Your task to perform on an android device: toggle wifi Image 0: 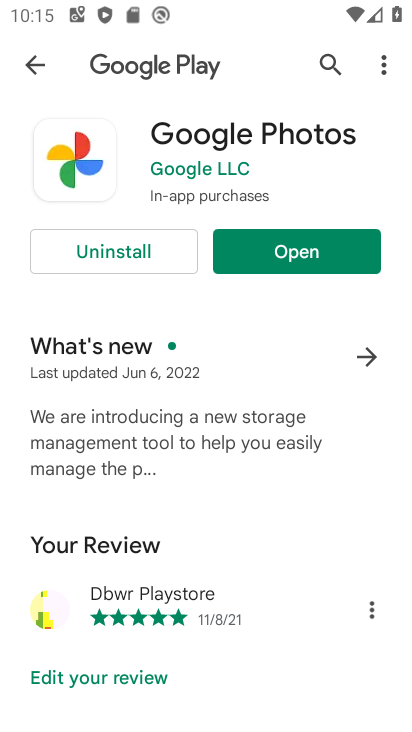
Step 0: press home button
Your task to perform on an android device: toggle wifi Image 1: 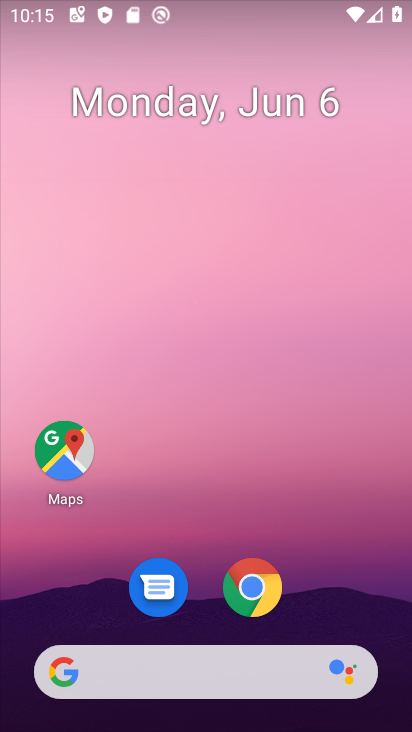
Step 1: drag from (209, 702) to (250, 4)
Your task to perform on an android device: toggle wifi Image 2: 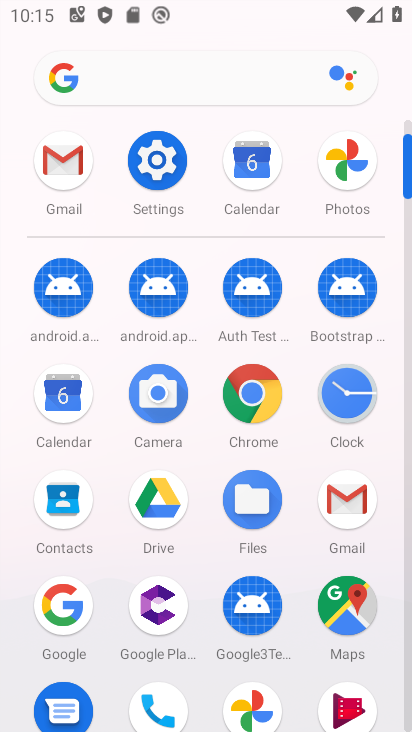
Step 2: click (144, 173)
Your task to perform on an android device: toggle wifi Image 3: 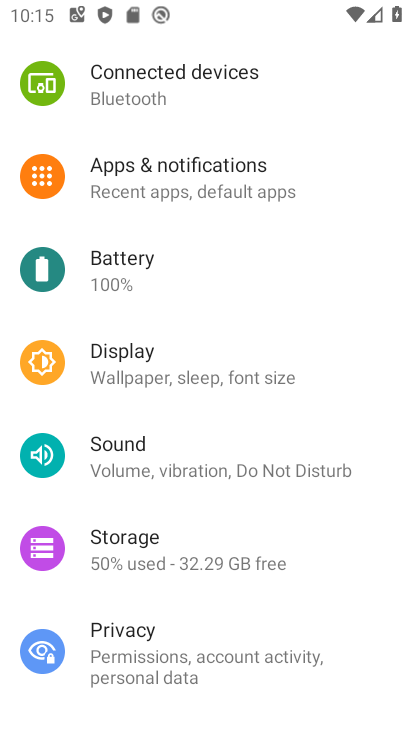
Step 3: drag from (254, 147) to (177, 632)
Your task to perform on an android device: toggle wifi Image 4: 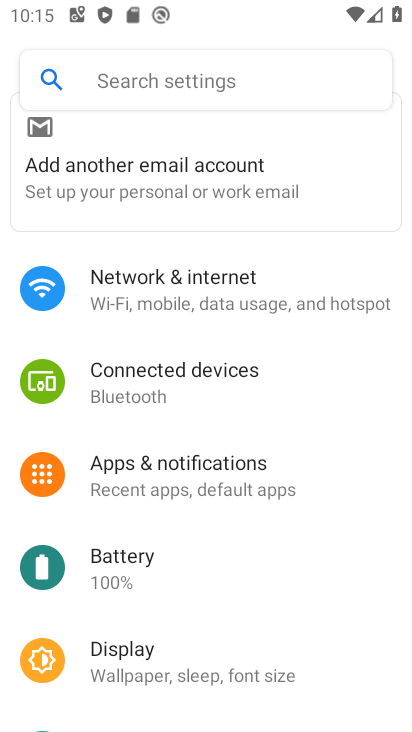
Step 4: click (256, 302)
Your task to perform on an android device: toggle wifi Image 5: 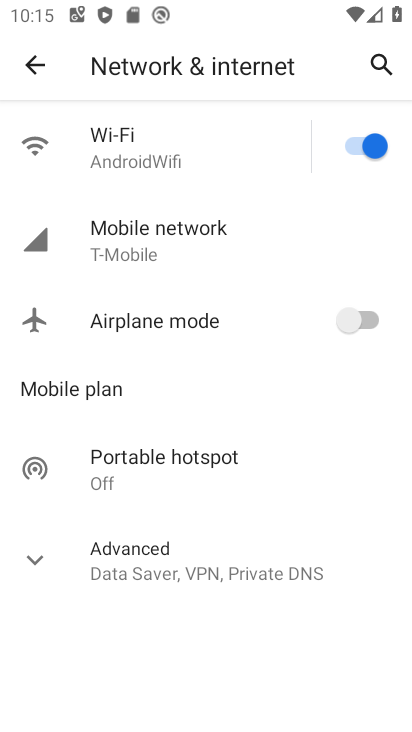
Step 5: click (370, 144)
Your task to perform on an android device: toggle wifi Image 6: 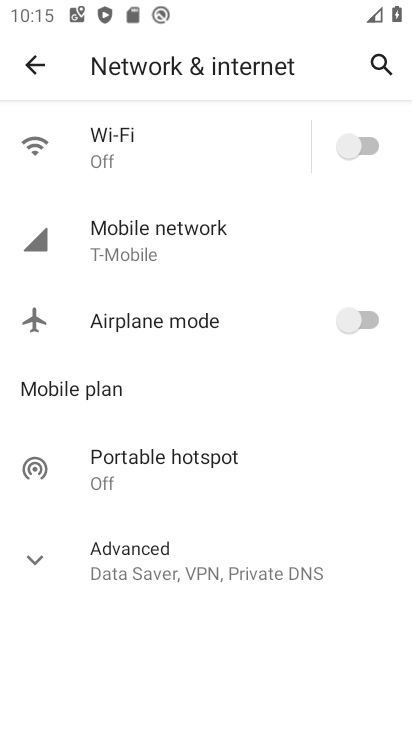
Step 6: task complete